Your task to perform on an android device: install app "Upside-Cash back on gas & food" Image 0: 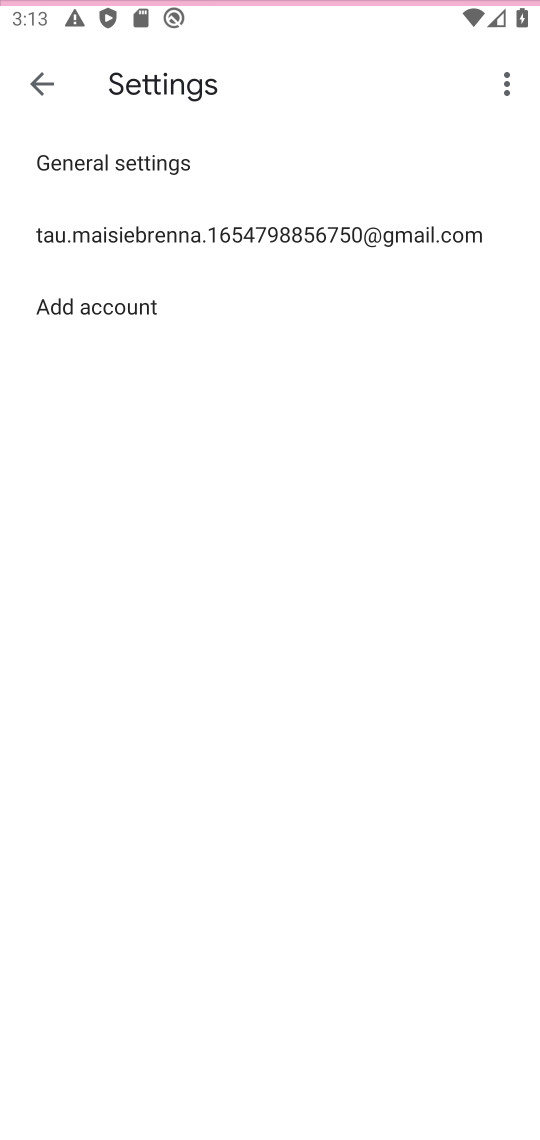
Step 0: press back button
Your task to perform on an android device: install app "Upside-Cash back on gas & food" Image 1: 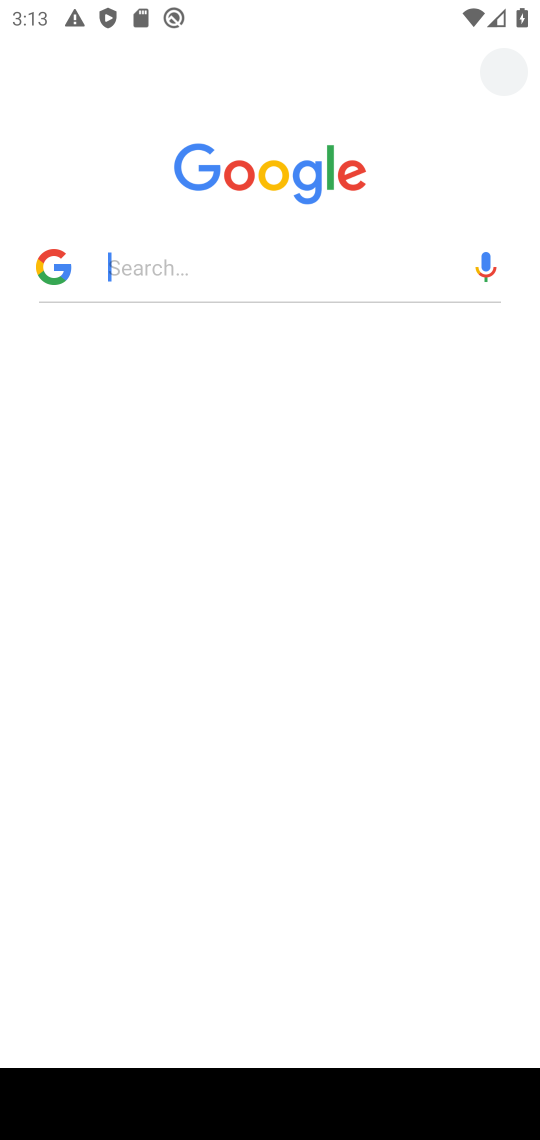
Step 1: click (47, 85)
Your task to perform on an android device: install app "Upside-Cash back on gas & food" Image 2: 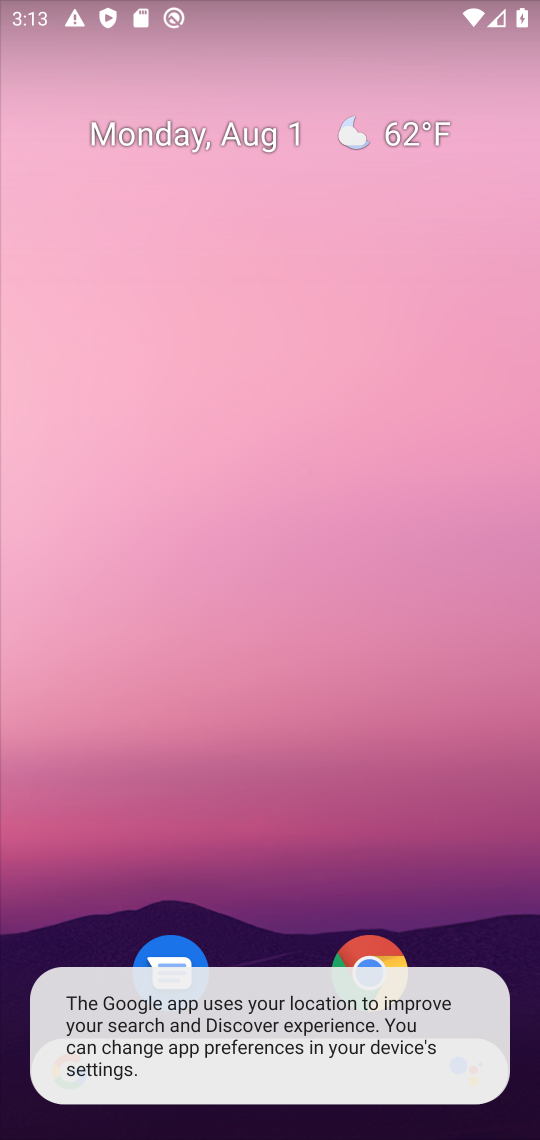
Step 2: drag from (304, 941) to (164, 280)
Your task to perform on an android device: install app "Upside-Cash back on gas & food" Image 3: 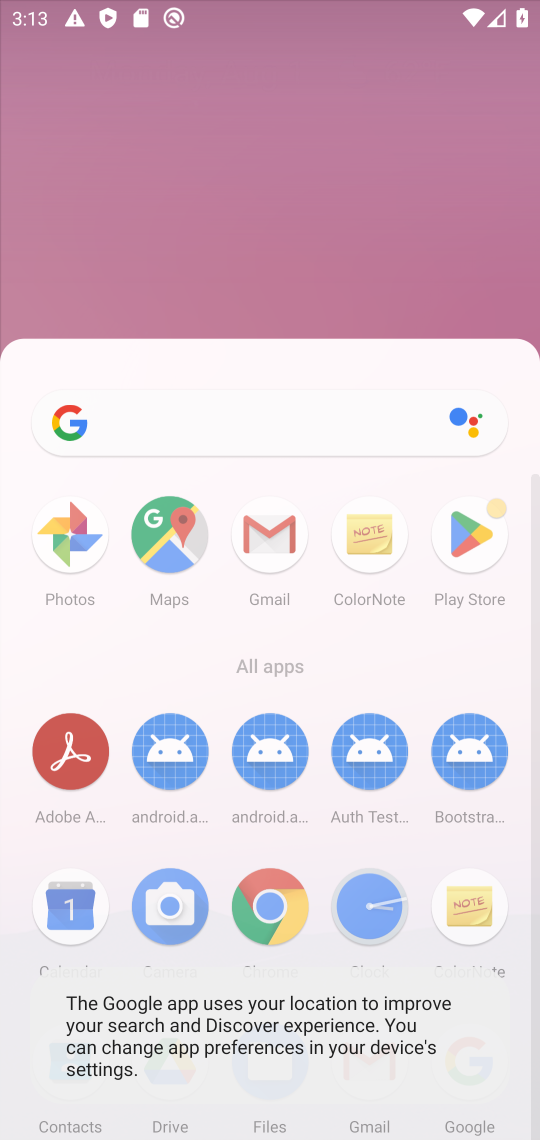
Step 3: drag from (235, 615) to (189, 363)
Your task to perform on an android device: install app "Upside-Cash back on gas & food" Image 4: 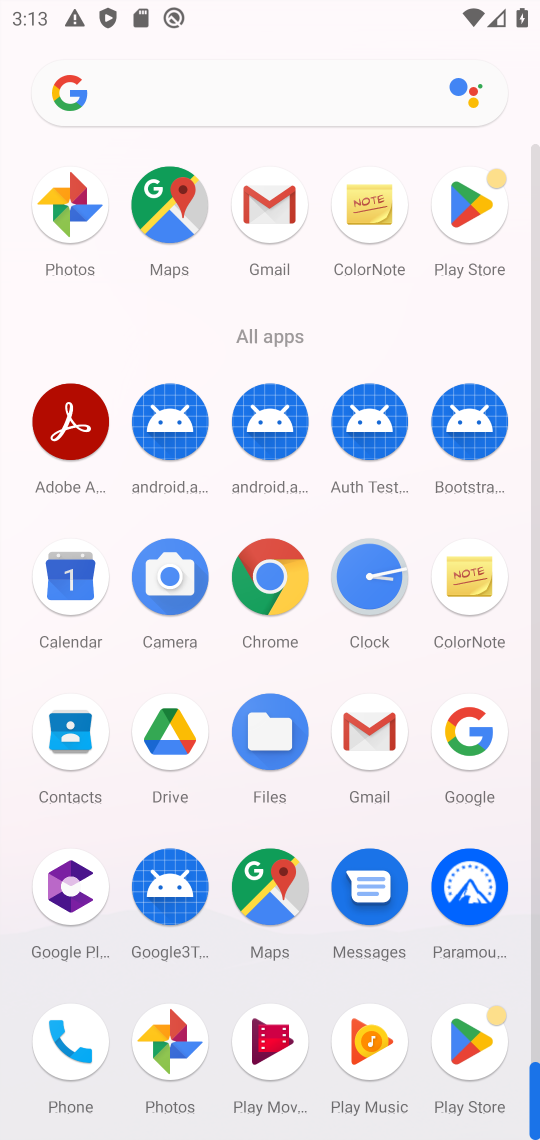
Step 4: click (461, 218)
Your task to perform on an android device: install app "Upside-Cash back on gas & food" Image 5: 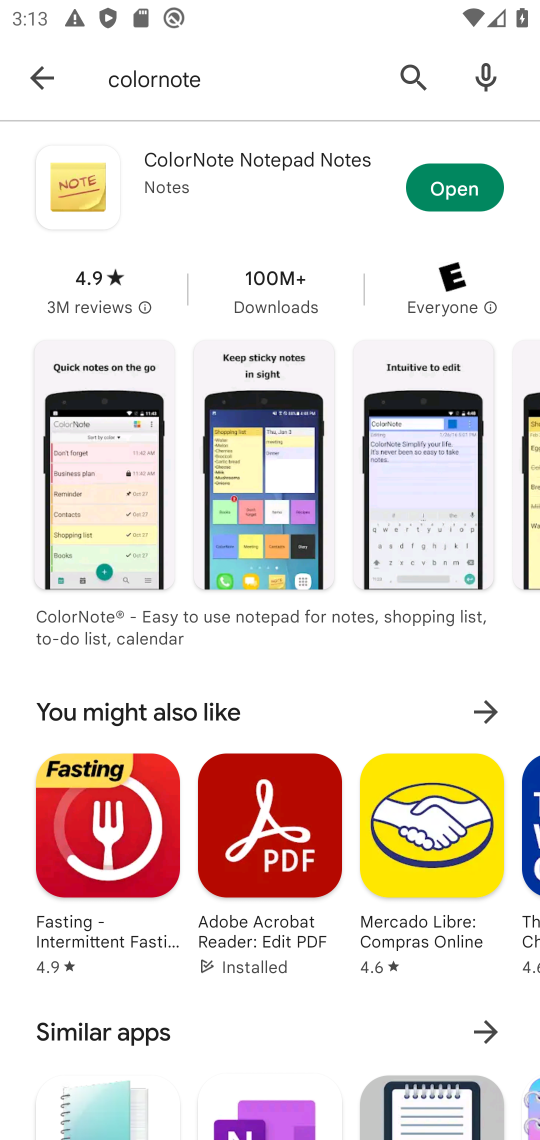
Step 5: click (44, 82)
Your task to perform on an android device: install app "Upside-Cash back on gas & food" Image 6: 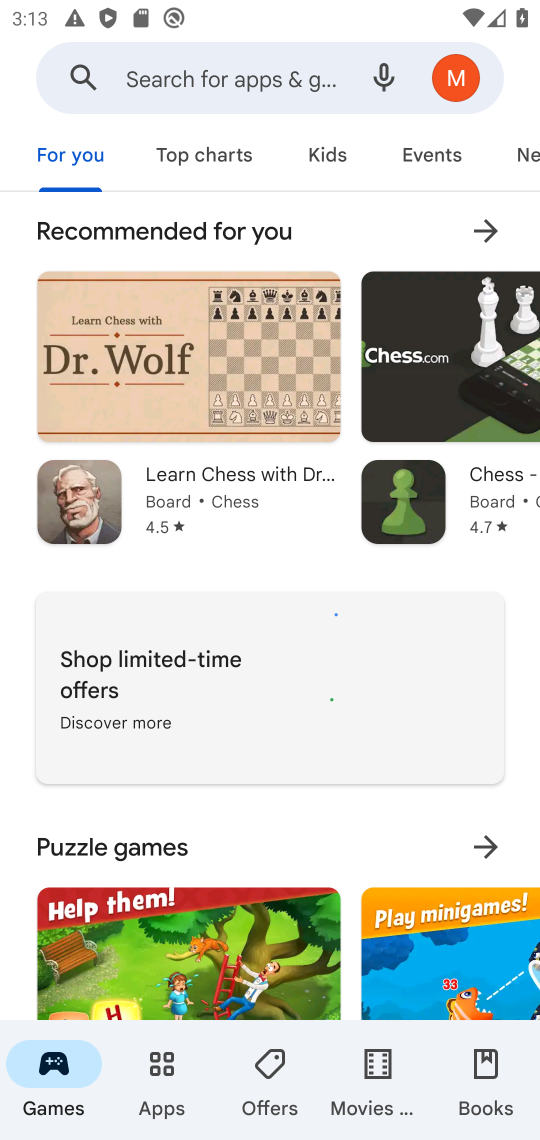
Step 6: click (162, 73)
Your task to perform on an android device: install app "Upside-Cash back on gas & food" Image 7: 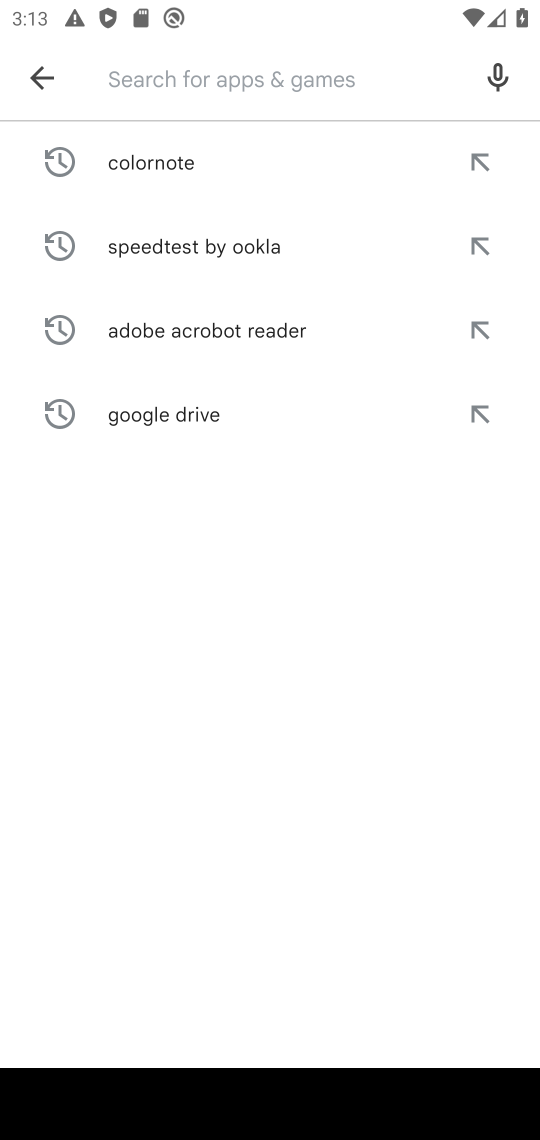
Step 7: type "upside- Cash back "
Your task to perform on an android device: install app "Upside-Cash back on gas & food" Image 8: 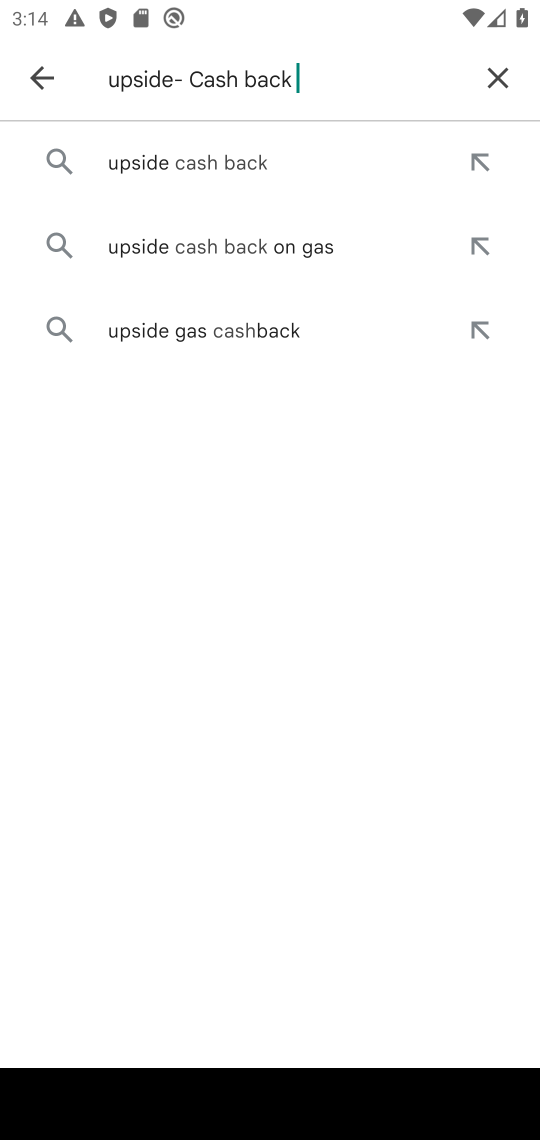
Step 8: click (200, 168)
Your task to perform on an android device: install app "Upside-Cash back on gas & food" Image 9: 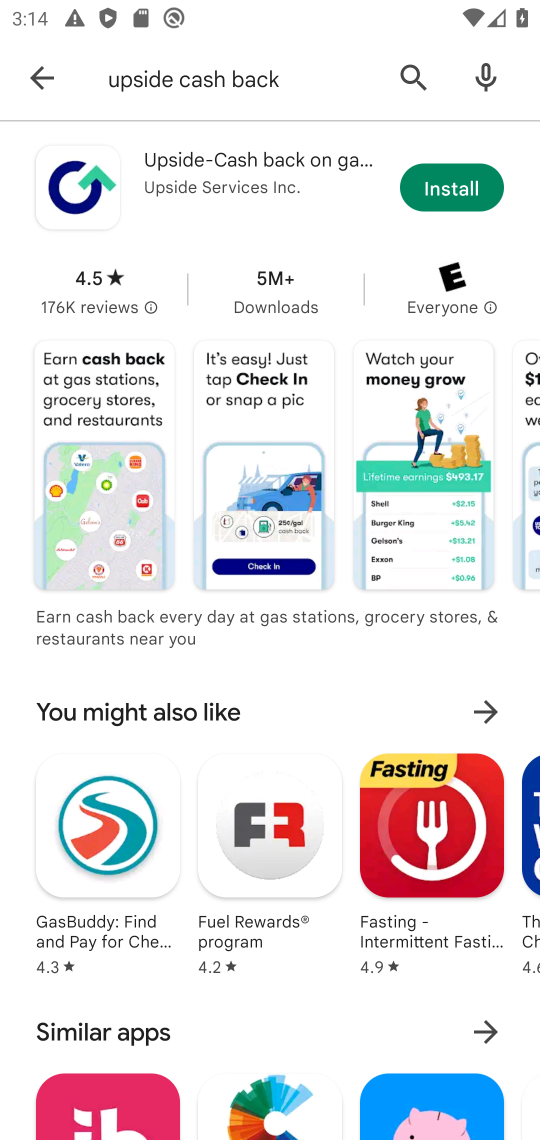
Step 9: click (466, 181)
Your task to perform on an android device: install app "Upside-Cash back on gas & food" Image 10: 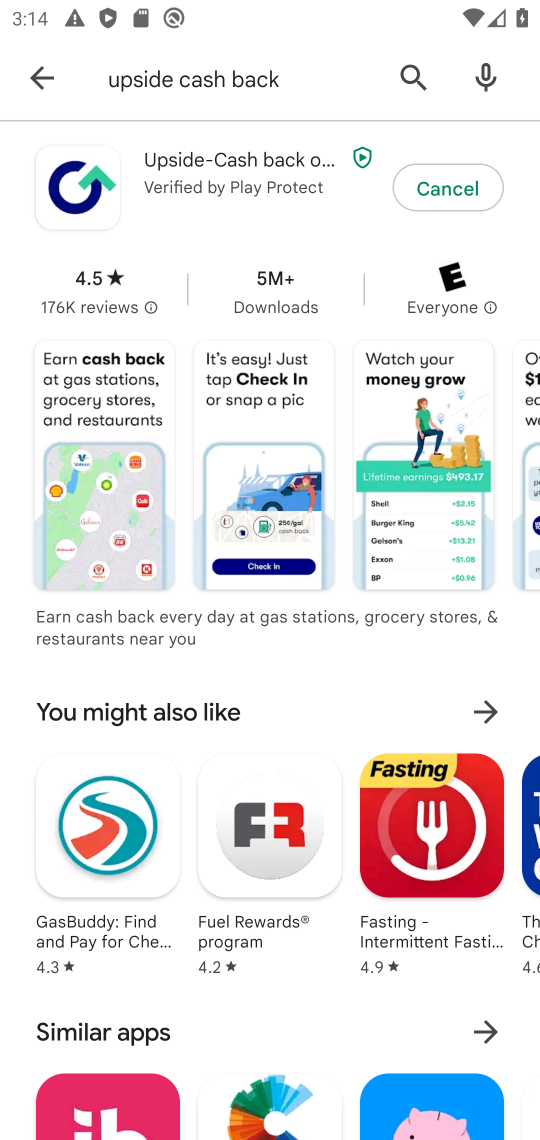
Step 10: click (449, 224)
Your task to perform on an android device: install app "Upside-Cash back on gas & food" Image 11: 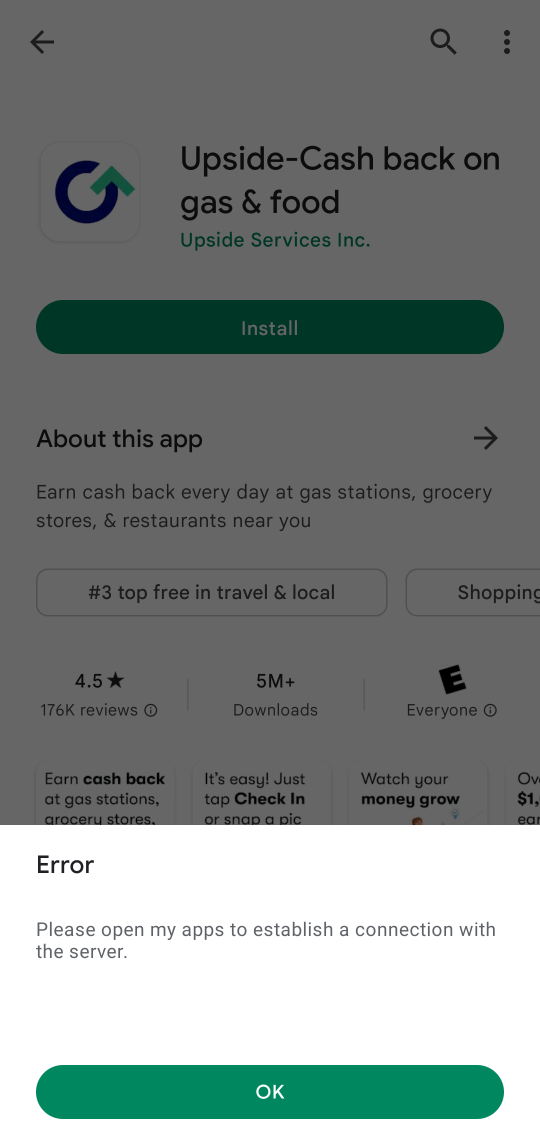
Step 11: click (292, 1077)
Your task to perform on an android device: install app "Upside-Cash back on gas & food" Image 12: 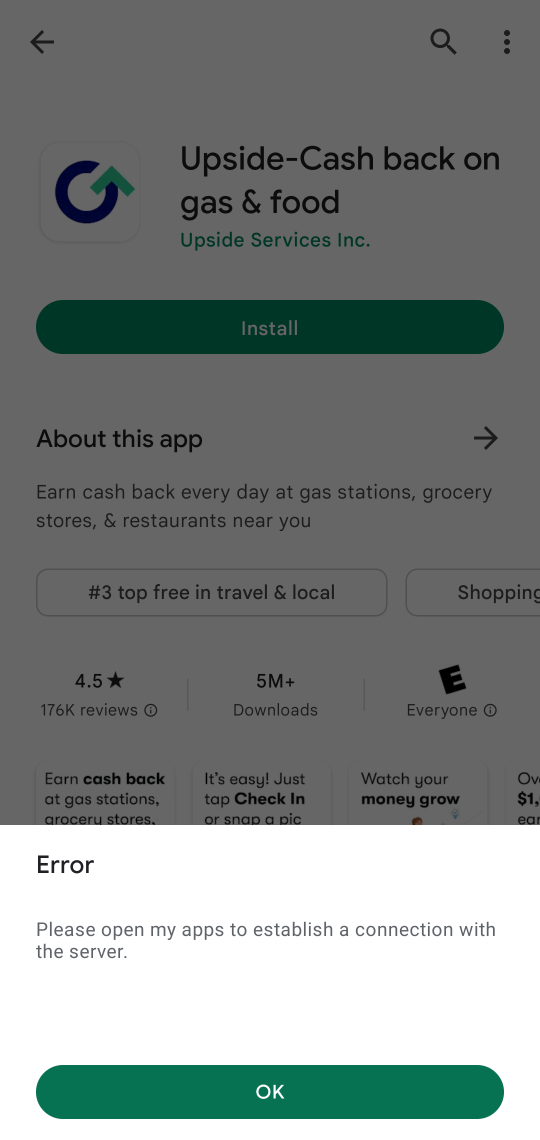
Step 12: click (305, 1081)
Your task to perform on an android device: install app "Upside-Cash back on gas & food" Image 13: 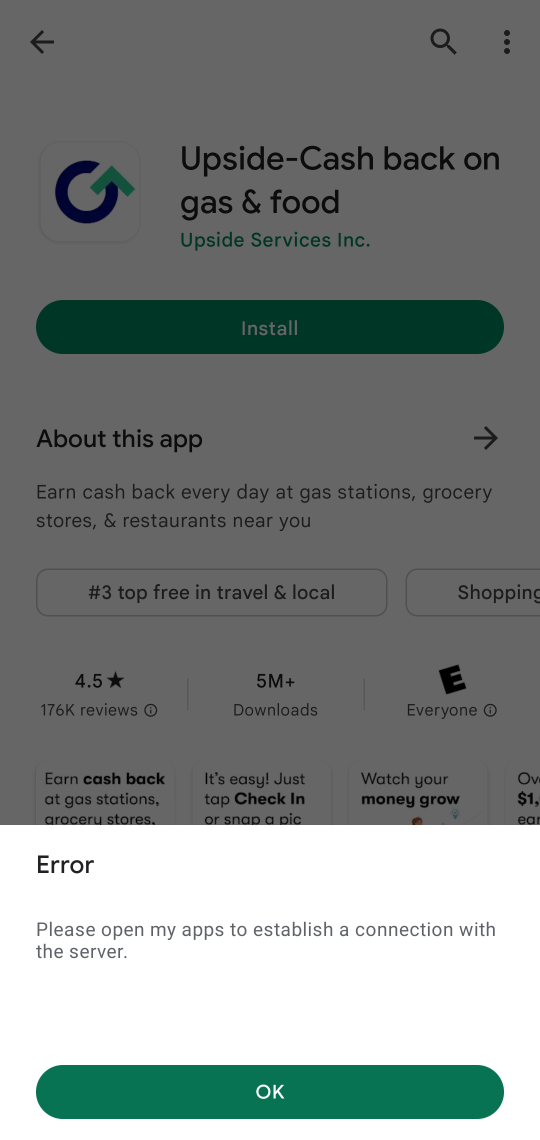
Step 13: click (306, 1084)
Your task to perform on an android device: install app "Upside-Cash back on gas & food" Image 14: 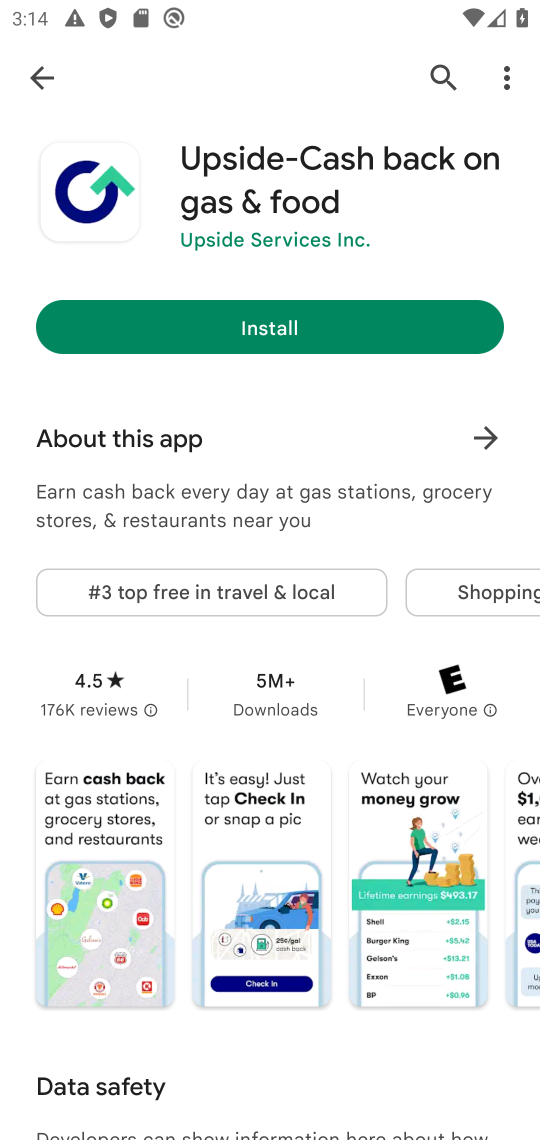
Step 14: click (306, 1084)
Your task to perform on an android device: install app "Upside-Cash back on gas & food" Image 15: 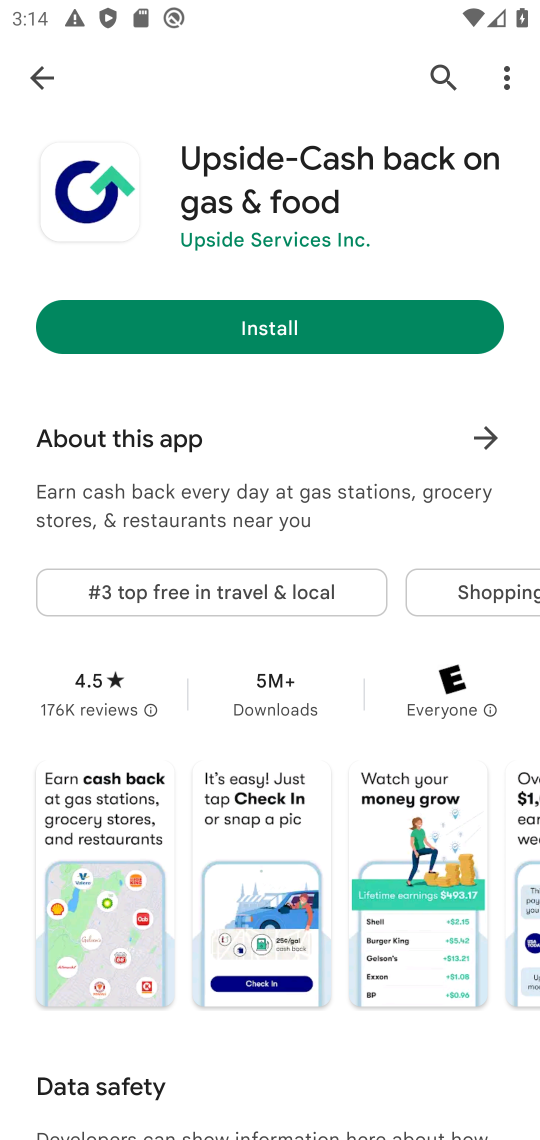
Step 15: click (278, 330)
Your task to perform on an android device: install app "Upside-Cash back on gas & food" Image 16: 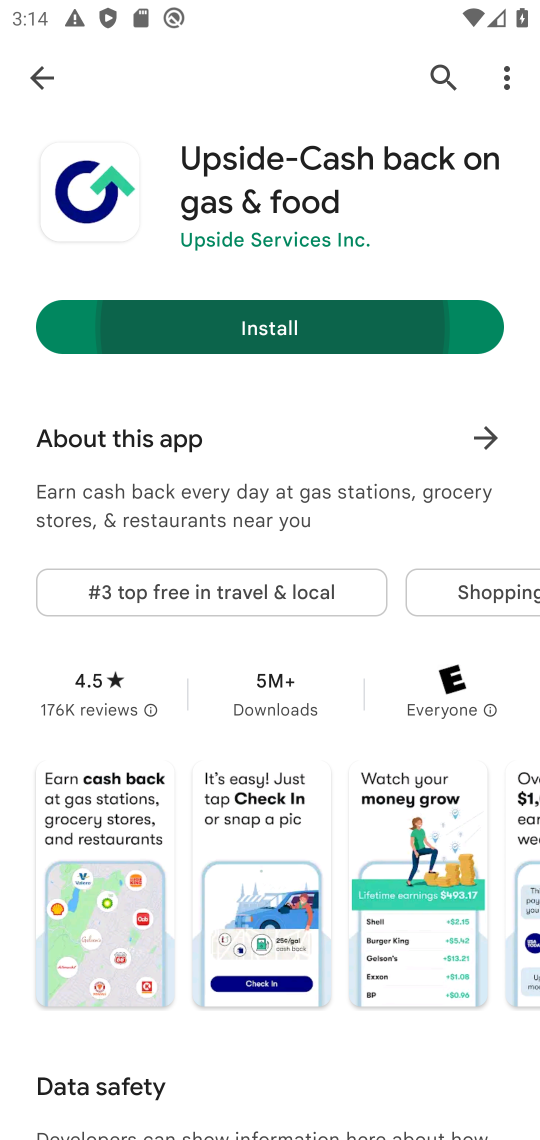
Step 16: click (280, 329)
Your task to perform on an android device: install app "Upside-Cash back on gas & food" Image 17: 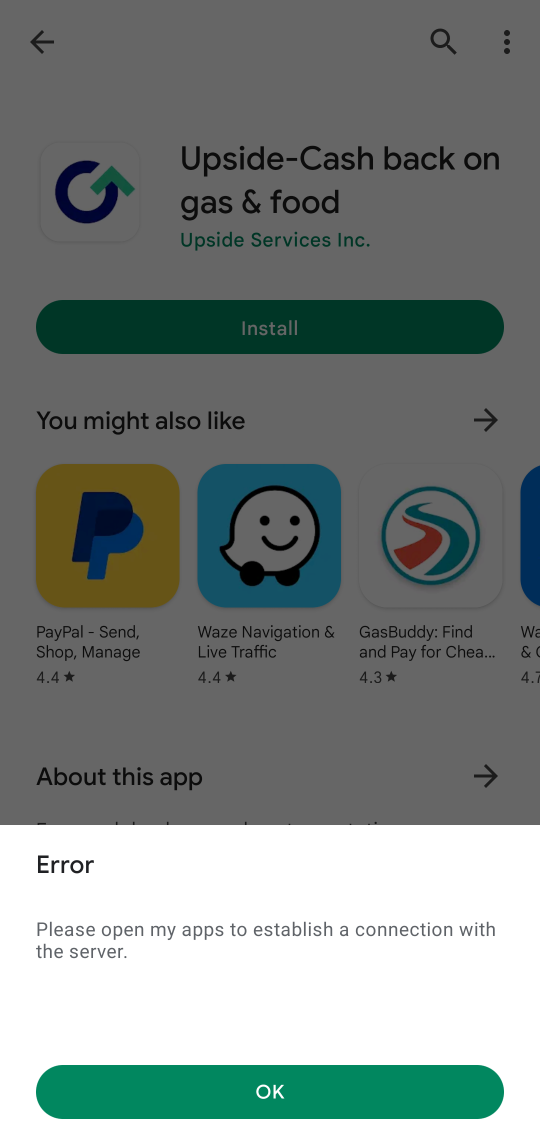
Step 17: click (295, 1104)
Your task to perform on an android device: install app "Upside-Cash back on gas & food" Image 18: 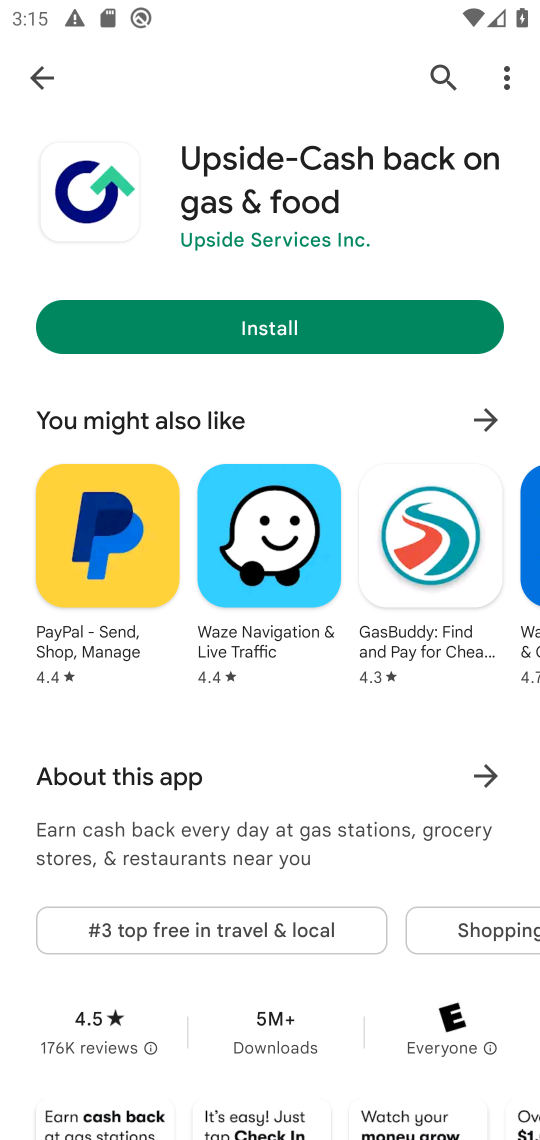
Step 18: click (318, 324)
Your task to perform on an android device: install app "Upside-Cash back on gas & food" Image 19: 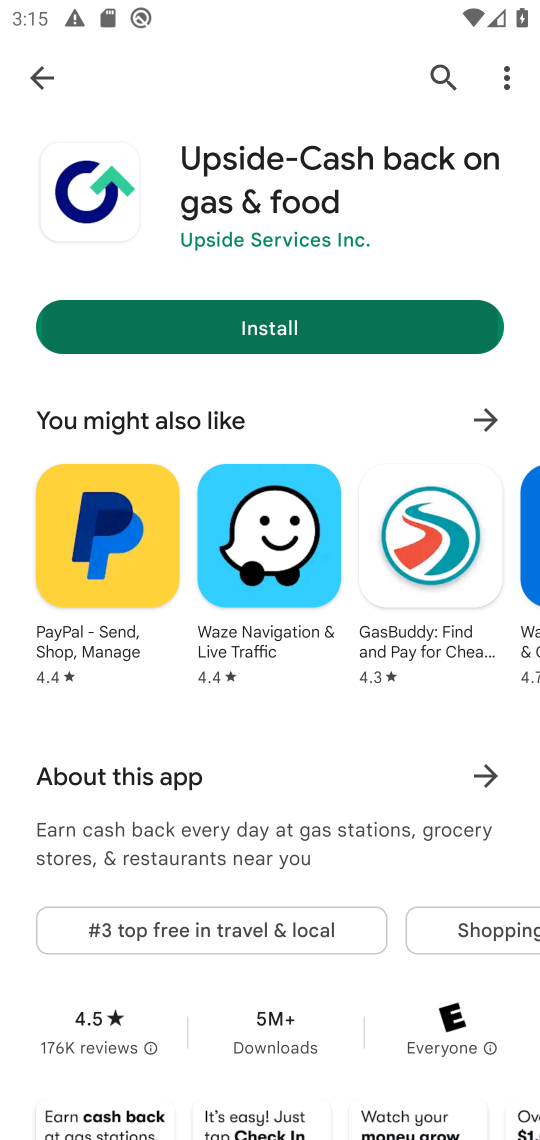
Step 19: click (319, 326)
Your task to perform on an android device: install app "Upside-Cash back on gas & food" Image 20: 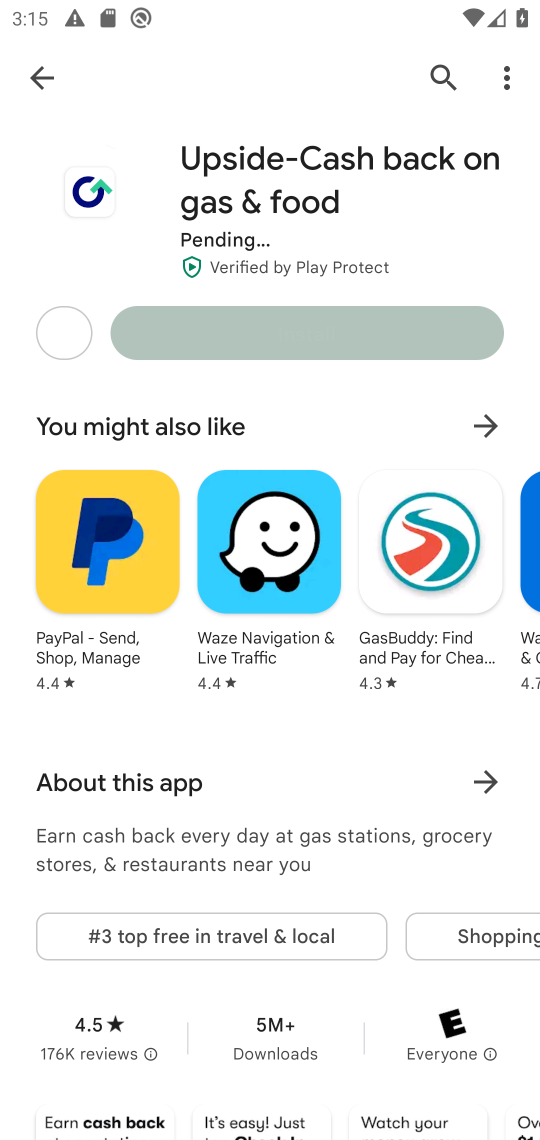
Step 20: click (319, 326)
Your task to perform on an android device: install app "Upside-Cash back on gas & food" Image 21: 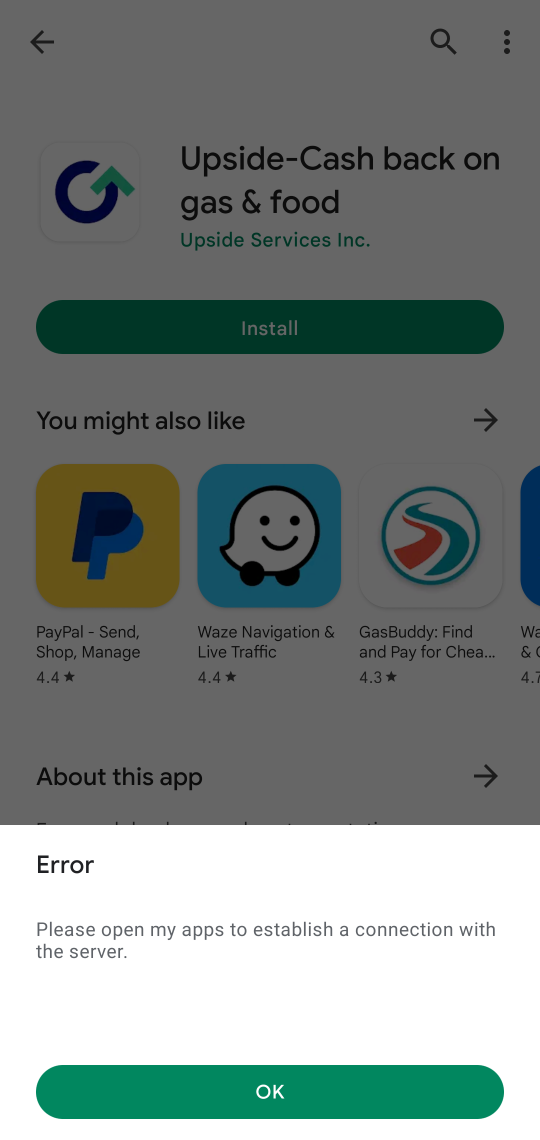
Step 21: click (305, 1090)
Your task to perform on an android device: install app "Upside-Cash back on gas & food" Image 22: 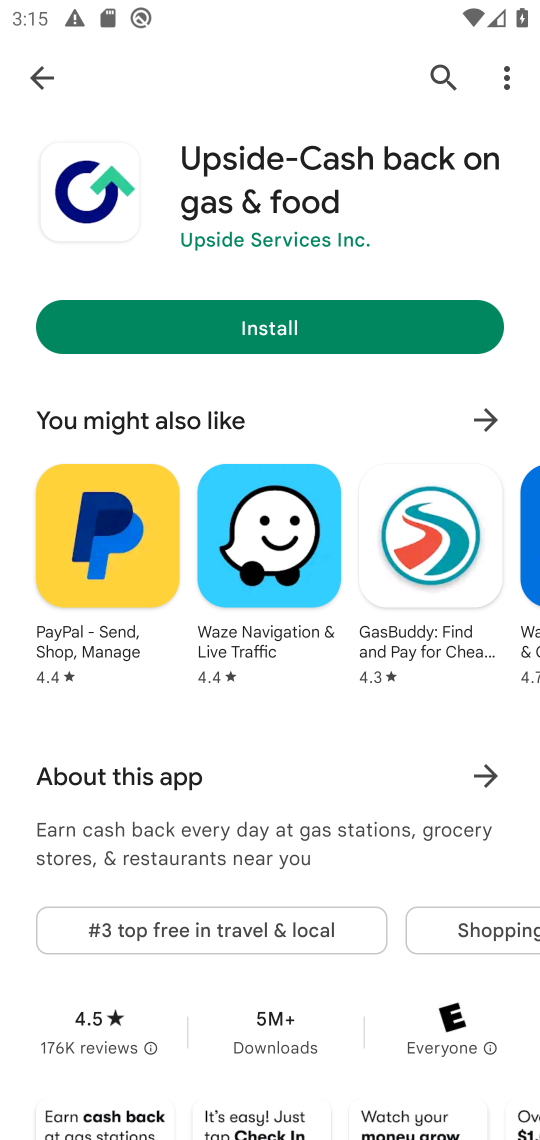
Step 22: click (327, 305)
Your task to perform on an android device: install app "Upside-Cash back on gas & food" Image 23: 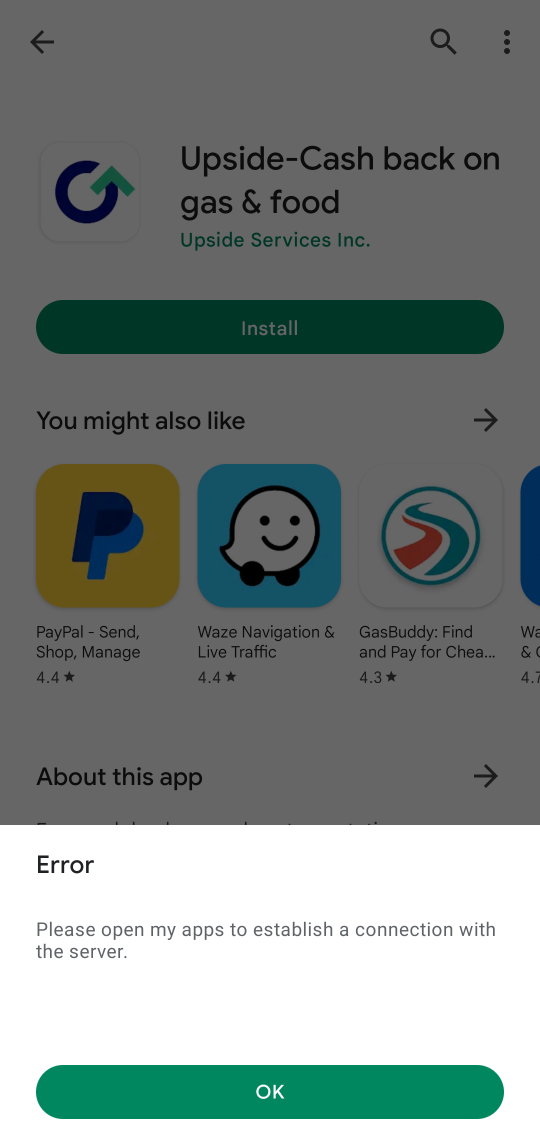
Step 23: click (311, 1100)
Your task to perform on an android device: install app "Upside-Cash back on gas & food" Image 24: 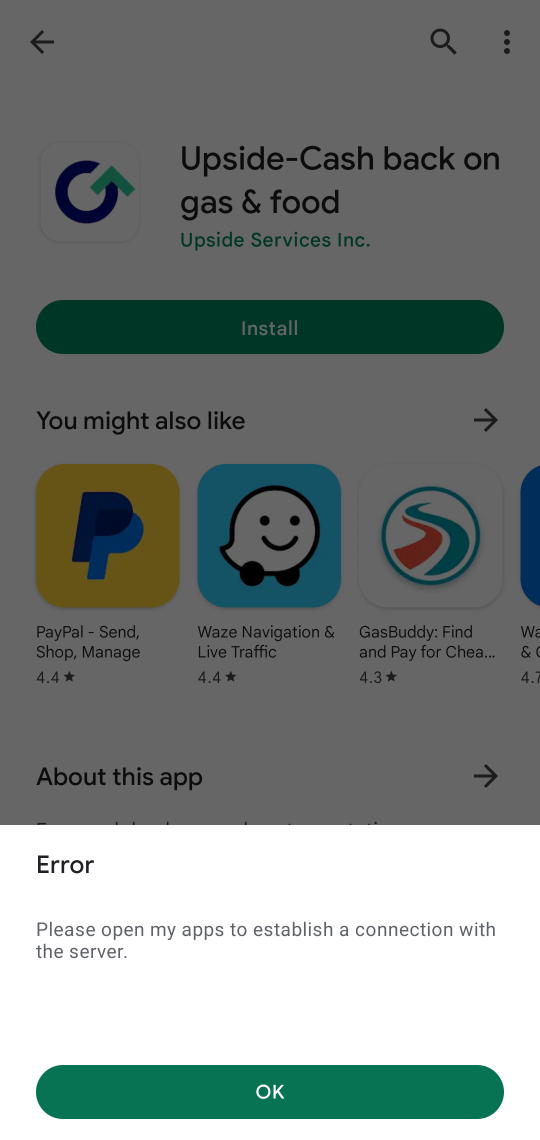
Step 24: click (305, 1101)
Your task to perform on an android device: install app "Upside-Cash back on gas & food" Image 25: 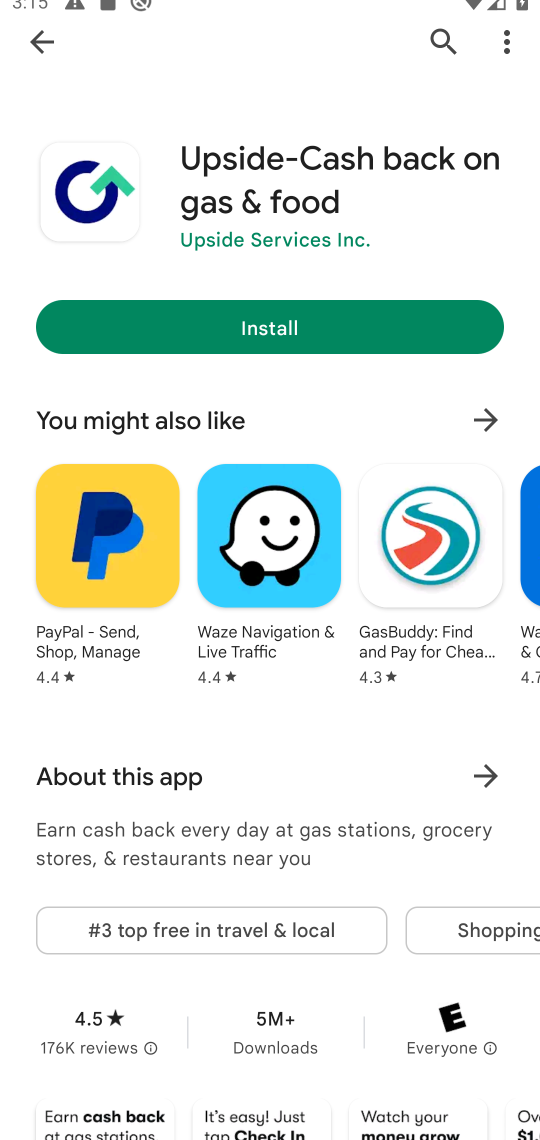
Step 25: click (288, 1119)
Your task to perform on an android device: install app "Upside-Cash back on gas & food" Image 26: 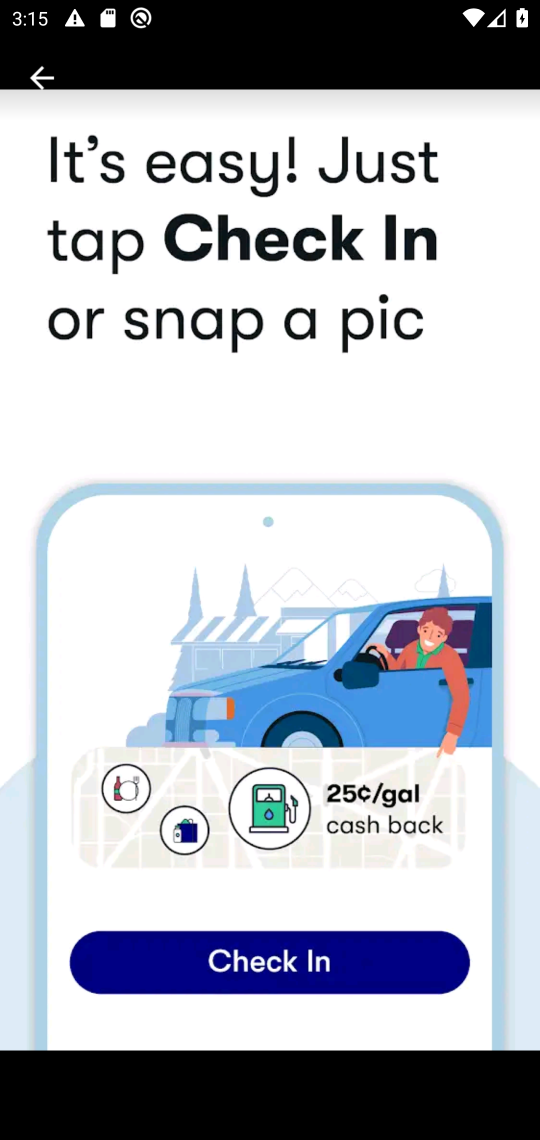
Step 26: drag from (253, 752) to (192, 331)
Your task to perform on an android device: install app "Upside-Cash back on gas & food" Image 27: 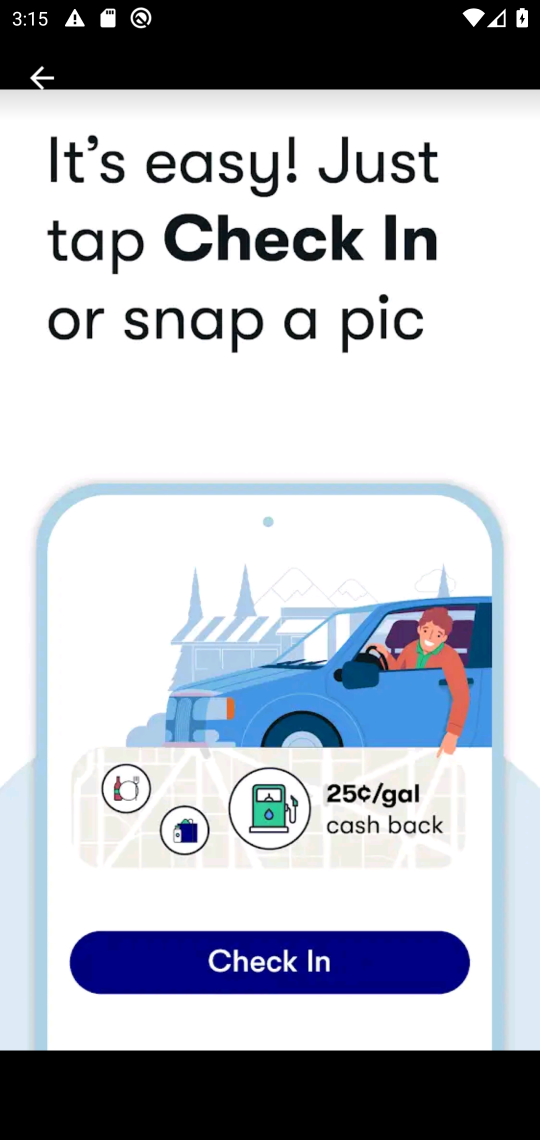
Step 27: click (300, 948)
Your task to perform on an android device: install app "Upside-Cash back on gas & food" Image 28: 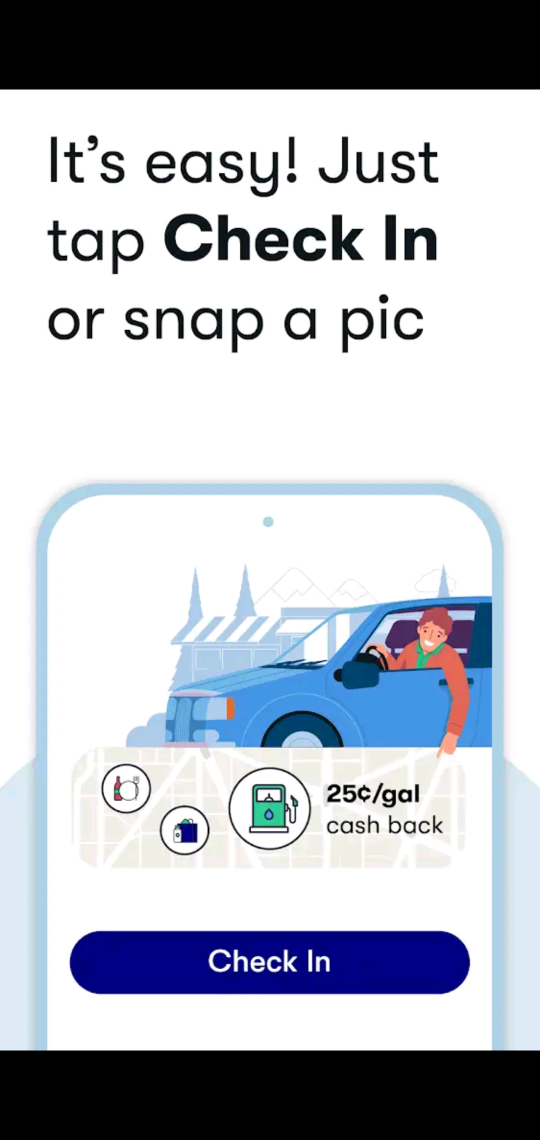
Step 28: task complete